Your task to perform on an android device: open app "Google Photos" (install if not already installed) Image 0: 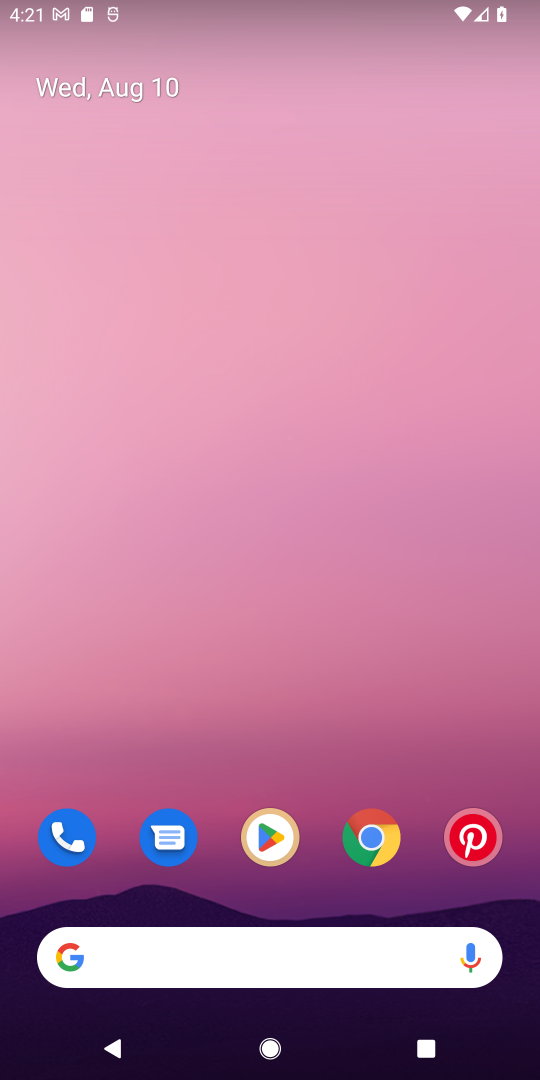
Step 0: click (272, 840)
Your task to perform on an android device: open app "Google Photos" (install if not already installed) Image 1: 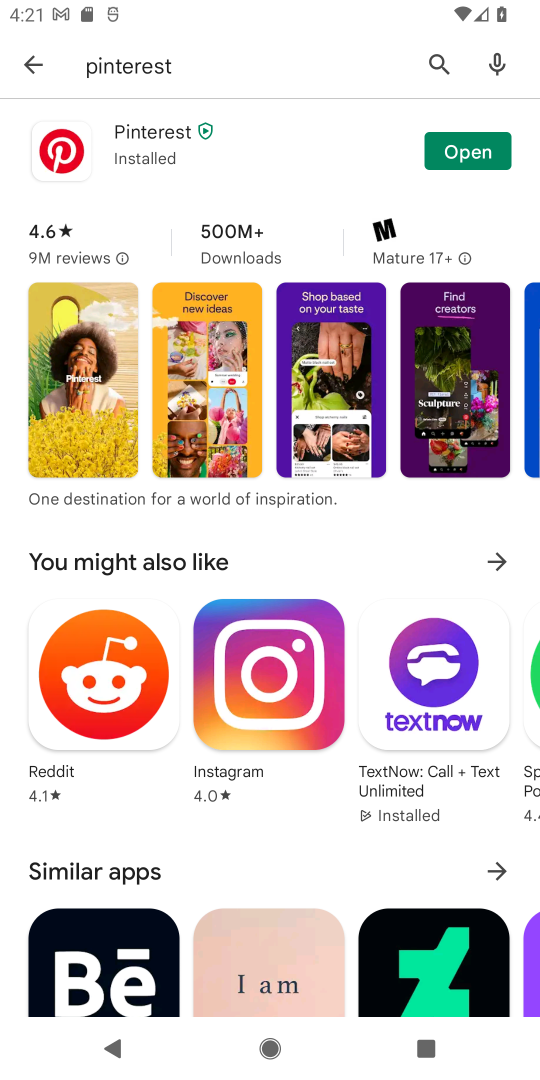
Step 1: click (438, 58)
Your task to perform on an android device: open app "Google Photos" (install if not already installed) Image 2: 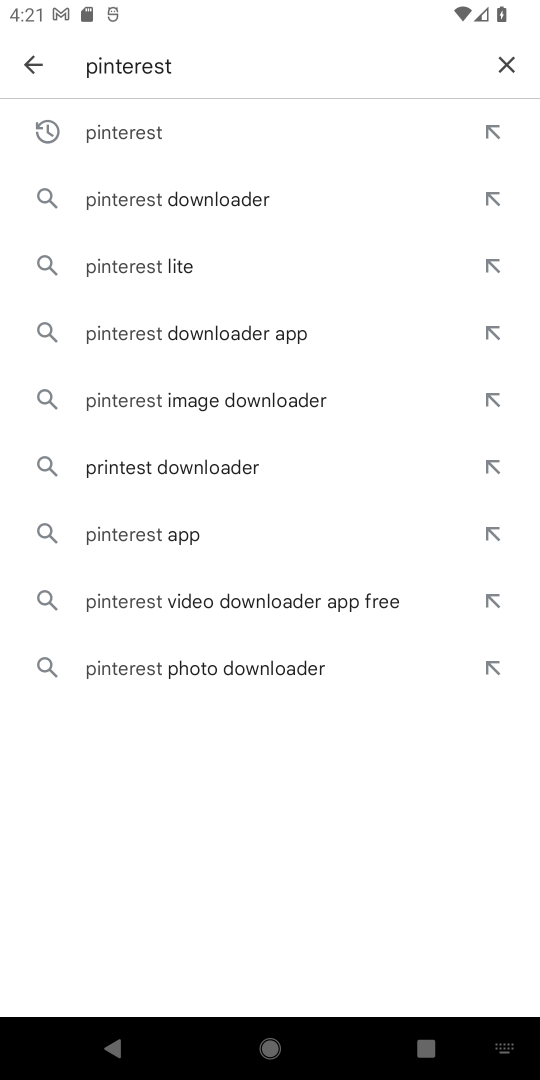
Step 2: click (506, 60)
Your task to perform on an android device: open app "Google Photos" (install if not already installed) Image 3: 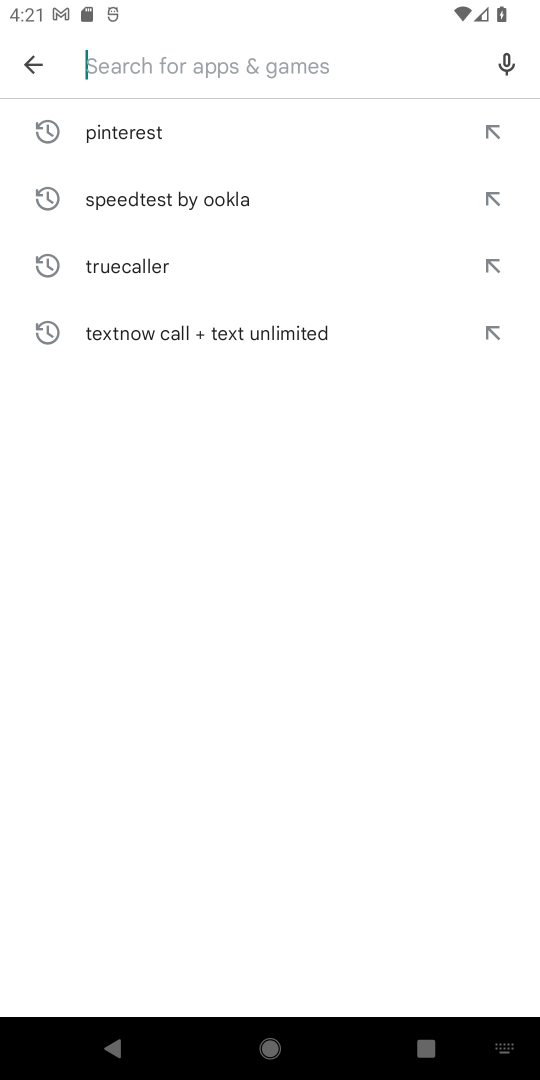
Step 3: type "Google Photos"
Your task to perform on an android device: open app "Google Photos" (install if not already installed) Image 4: 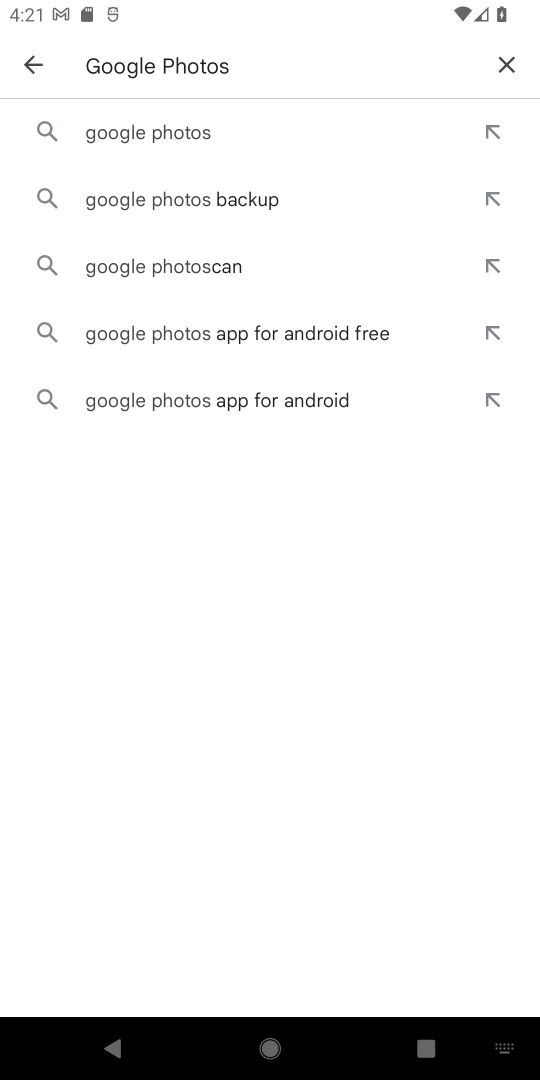
Step 4: click (159, 122)
Your task to perform on an android device: open app "Google Photos" (install if not already installed) Image 5: 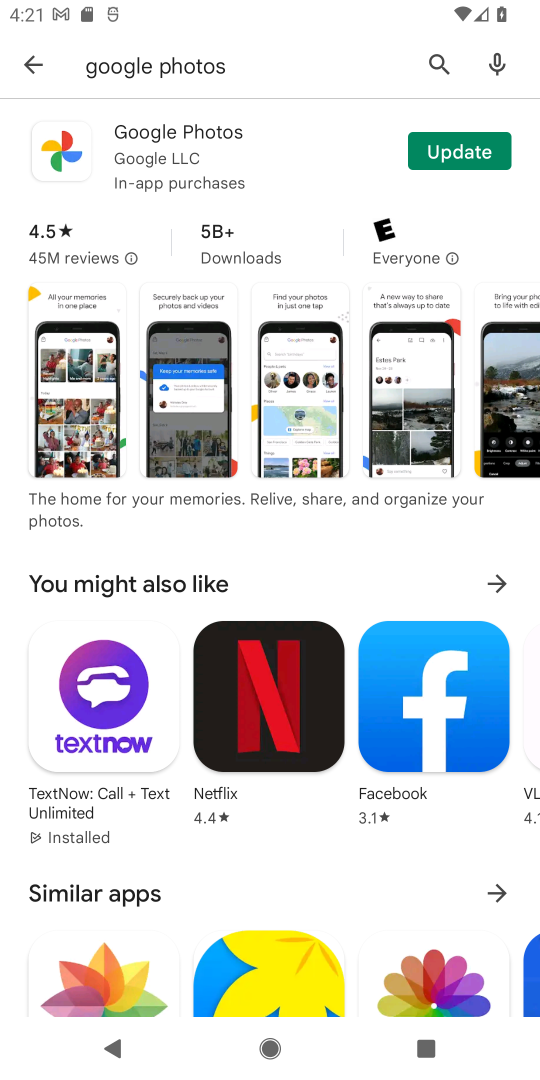
Step 5: click (192, 180)
Your task to perform on an android device: open app "Google Photos" (install if not already installed) Image 6: 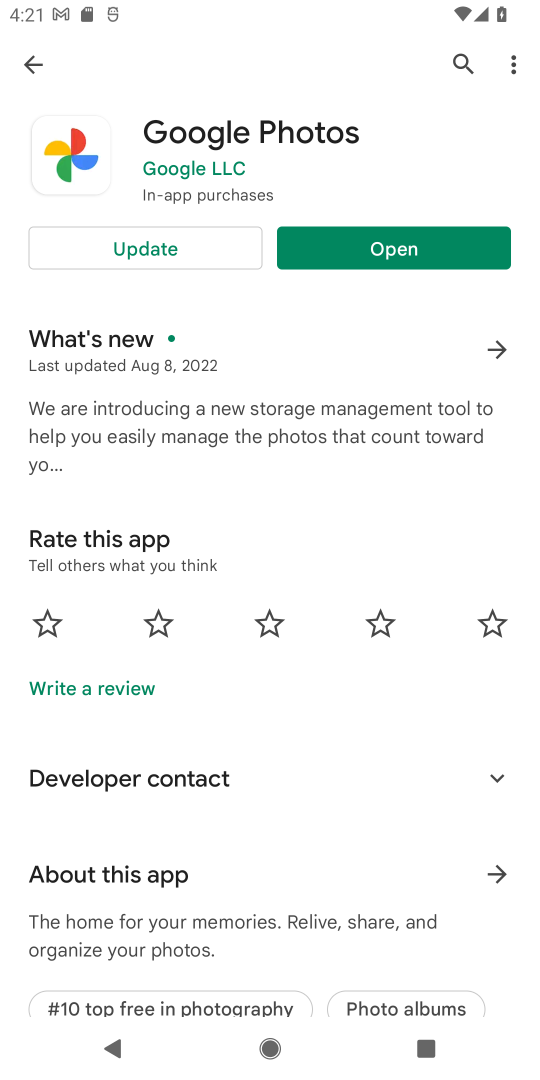
Step 6: click (431, 250)
Your task to perform on an android device: open app "Google Photos" (install if not already installed) Image 7: 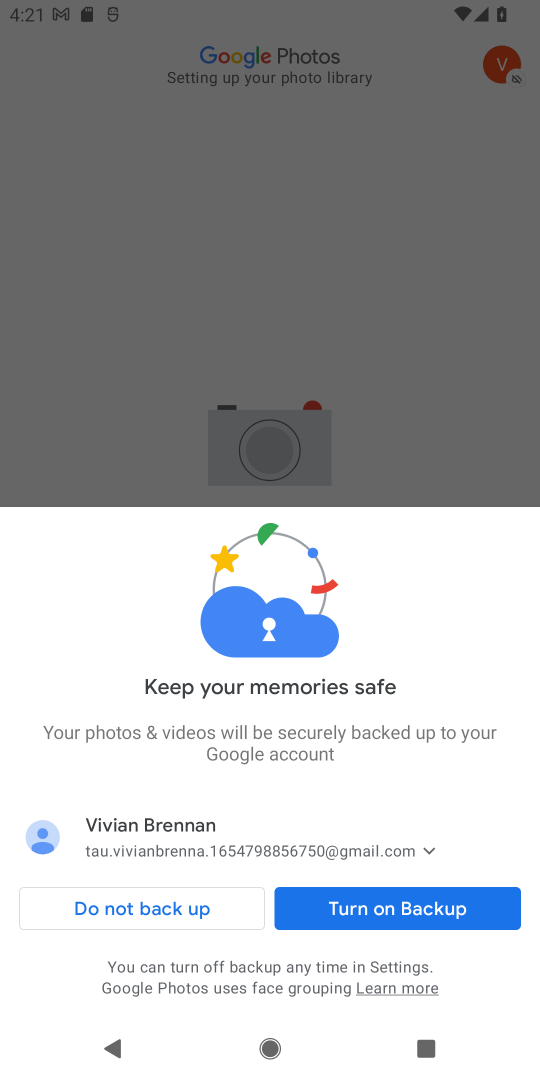
Step 7: task complete